Your task to perform on an android device: When is my next appointment? Image 0: 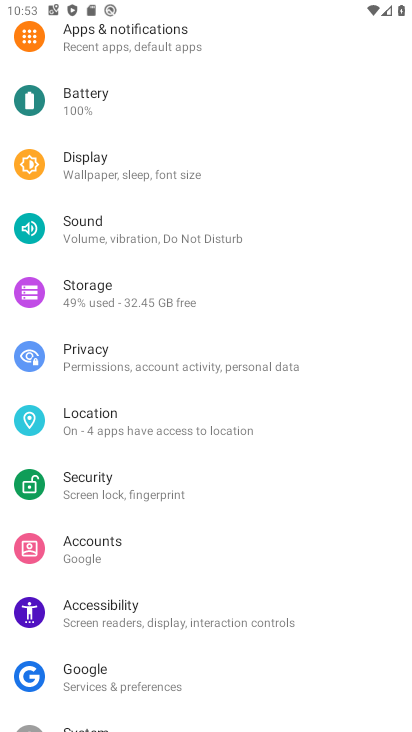
Step 0: press home button
Your task to perform on an android device: When is my next appointment? Image 1: 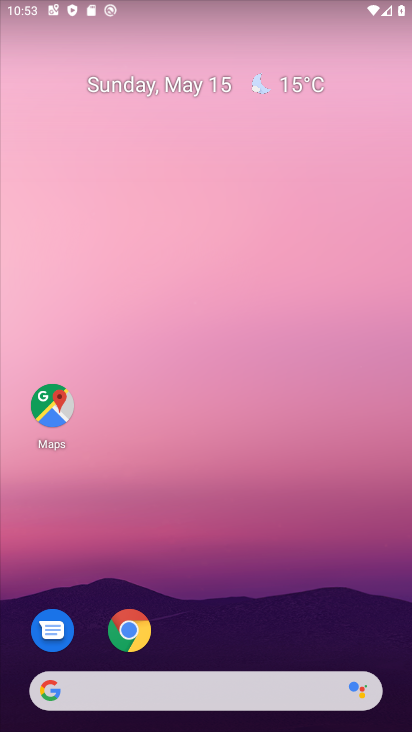
Step 1: drag from (214, 708) to (211, 156)
Your task to perform on an android device: When is my next appointment? Image 2: 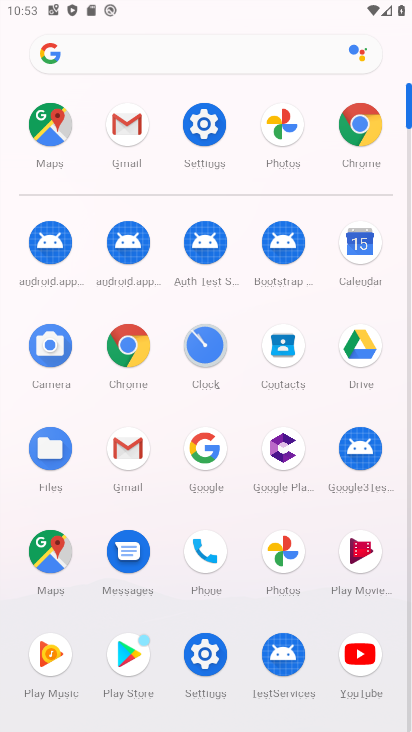
Step 2: click (357, 248)
Your task to perform on an android device: When is my next appointment? Image 3: 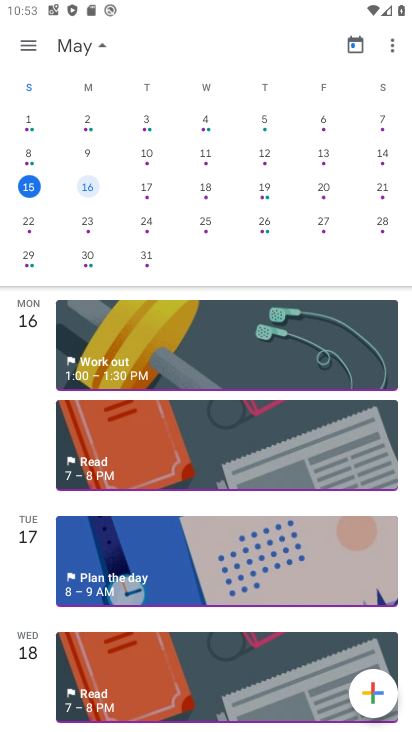
Step 3: click (89, 184)
Your task to perform on an android device: When is my next appointment? Image 4: 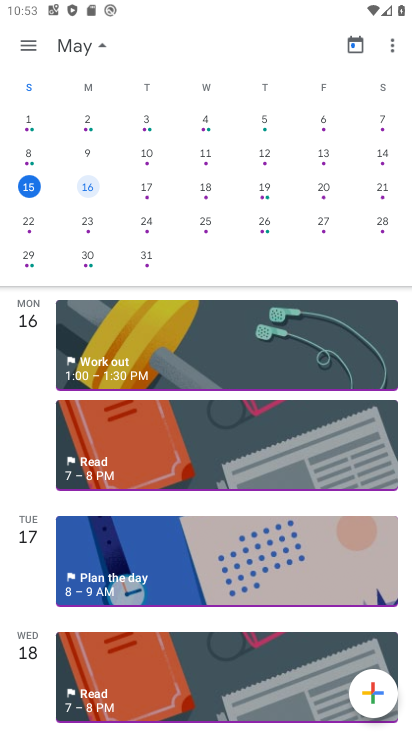
Step 4: task complete